Your task to perform on an android device: Show me popular videos on Youtube Image 0: 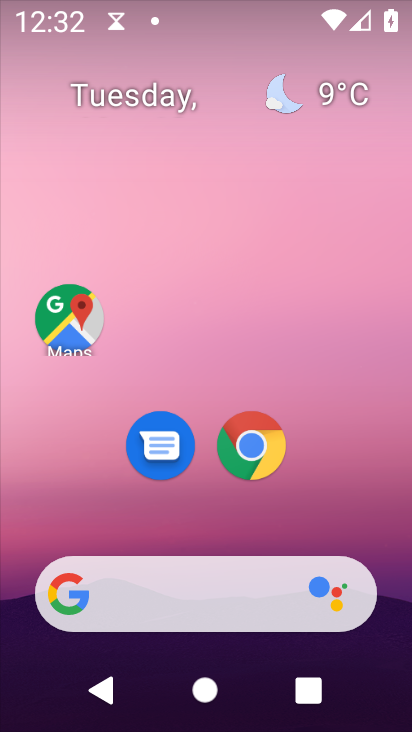
Step 0: drag from (284, 558) to (290, 10)
Your task to perform on an android device: Show me popular videos on Youtube Image 1: 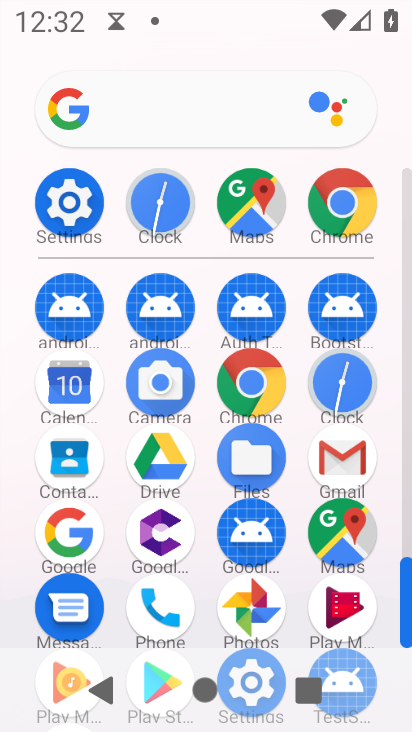
Step 1: drag from (280, 626) to (252, 126)
Your task to perform on an android device: Show me popular videos on Youtube Image 2: 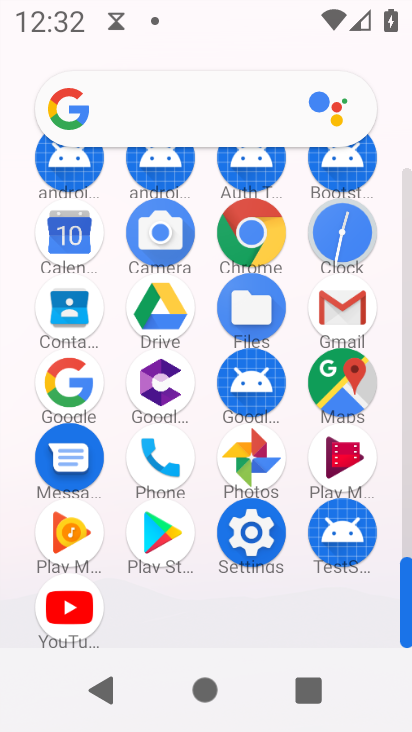
Step 2: click (80, 603)
Your task to perform on an android device: Show me popular videos on Youtube Image 3: 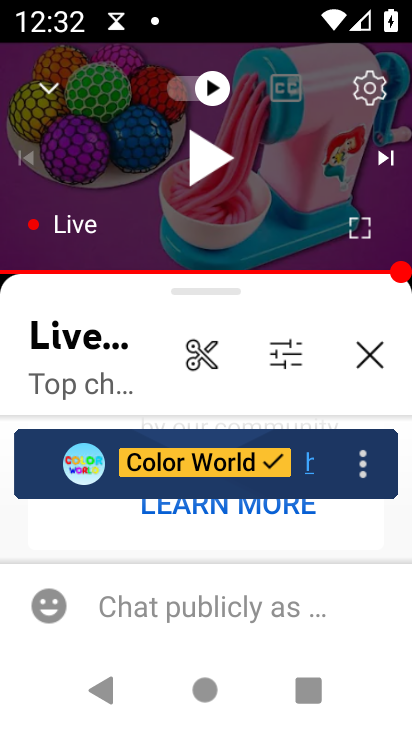
Step 3: press back button
Your task to perform on an android device: Show me popular videos on Youtube Image 4: 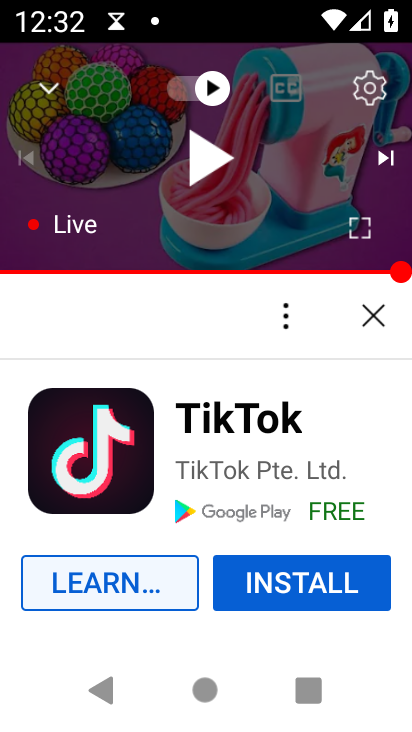
Step 4: press back button
Your task to perform on an android device: Show me popular videos on Youtube Image 5: 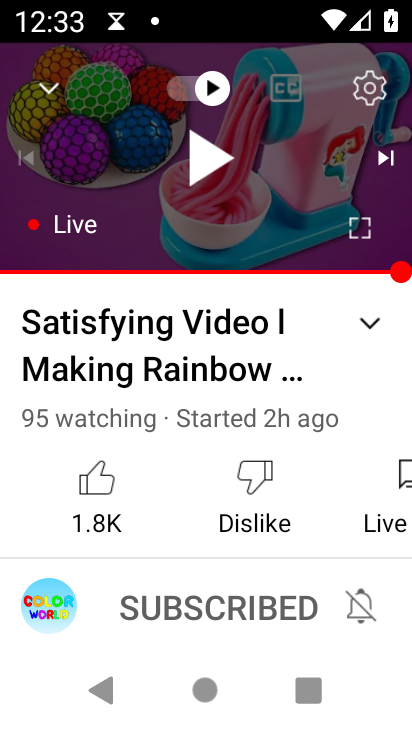
Step 5: drag from (235, 184) to (257, 653)
Your task to perform on an android device: Show me popular videos on Youtube Image 6: 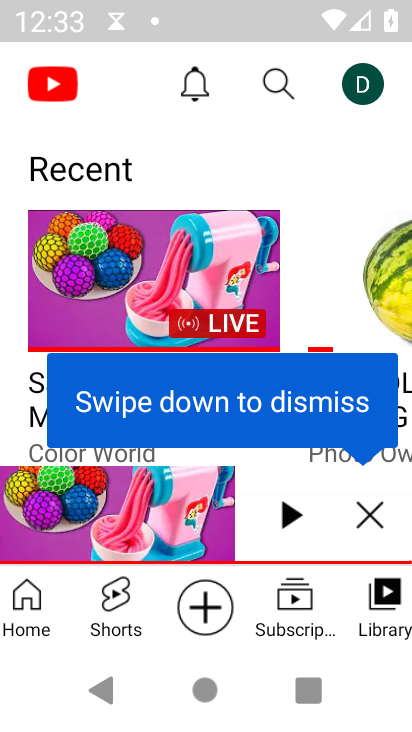
Step 6: click (29, 609)
Your task to perform on an android device: Show me popular videos on Youtube Image 7: 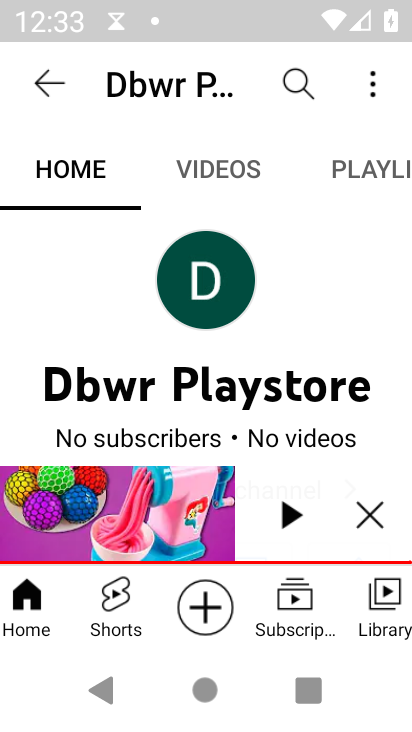
Step 7: click (134, 607)
Your task to perform on an android device: Show me popular videos on Youtube Image 8: 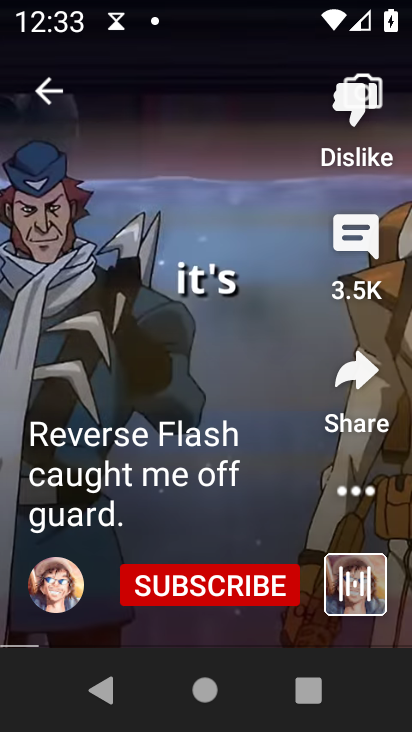
Step 8: task complete